Your task to perform on an android device: What is the news today? Image 0: 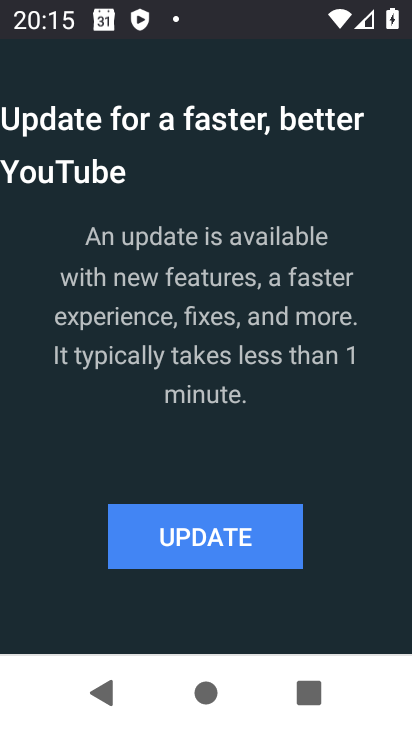
Step 0: press home button
Your task to perform on an android device: What is the news today? Image 1: 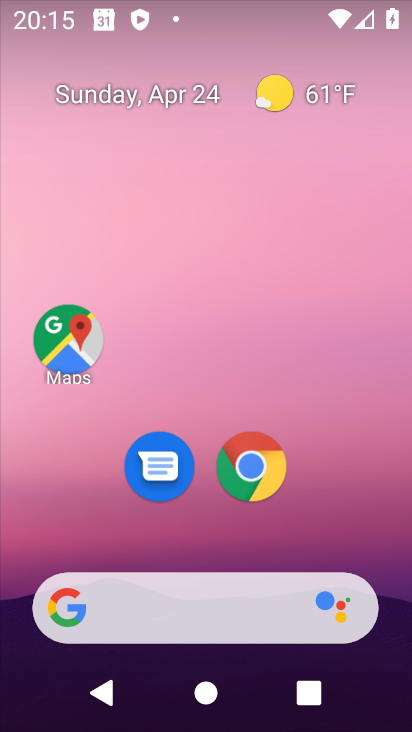
Step 1: click (229, 607)
Your task to perform on an android device: What is the news today? Image 2: 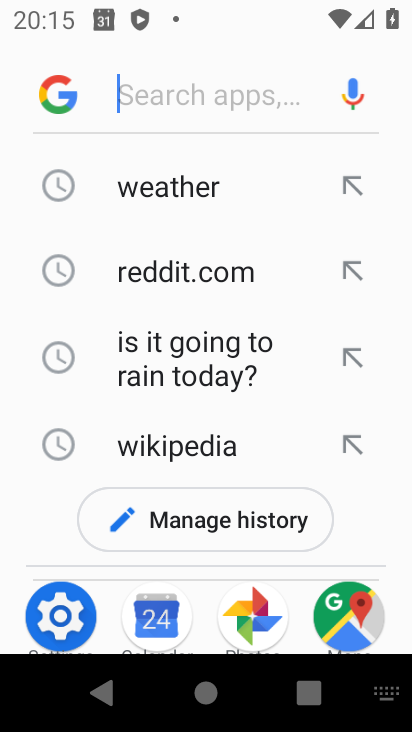
Step 2: type "news today"
Your task to perform on an android device: What is the news today? Image 3: 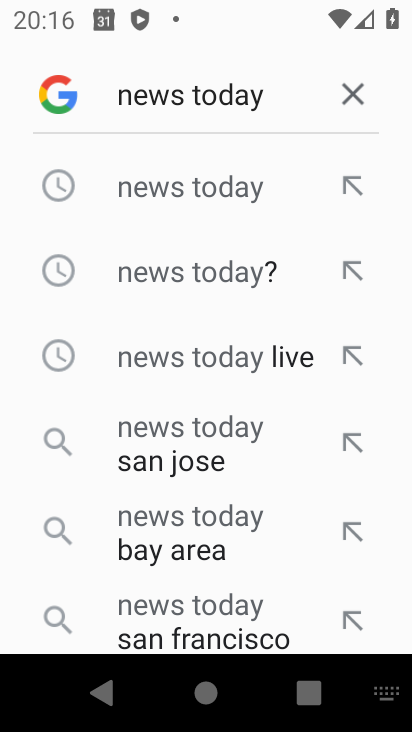
Step 3: click (191, 171)
Your task to perform on an android device: What is the news today? Image 4: 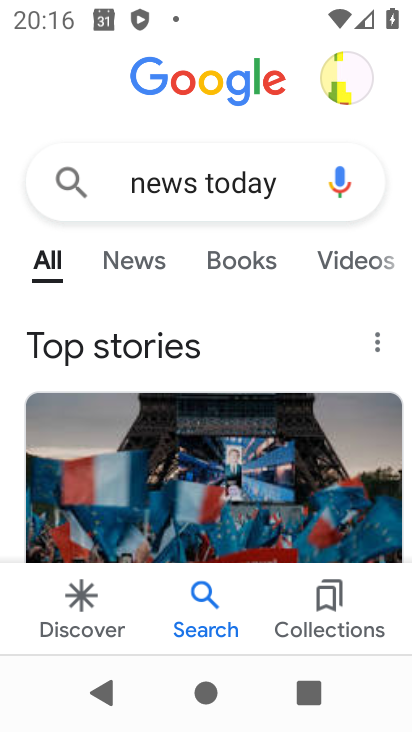
Step 4: task complete